Your task to perform on an android device: Show me popular games on the Play Store Image 0: 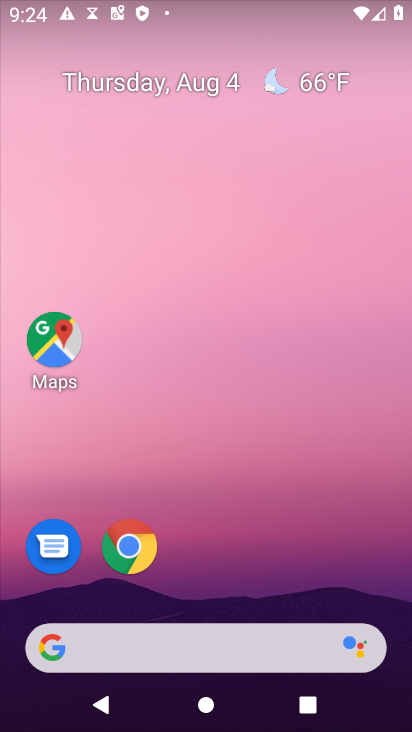
Step 0: drag from (248, 530) to (311, 72)
Your task to perform on an android device: Show me popular games on the Play Store Image 1: 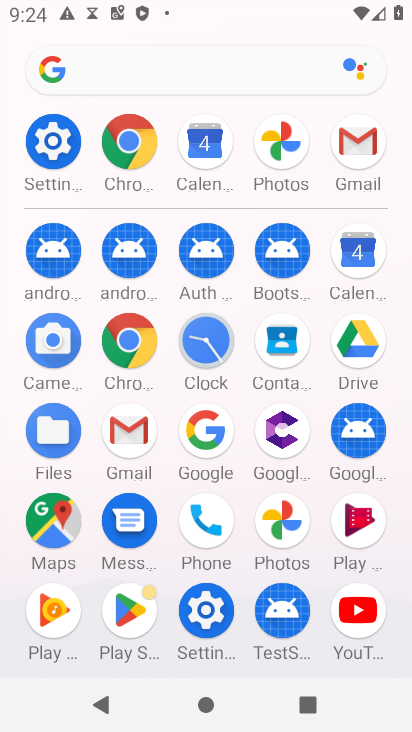
Step 1: click (128, 608)
Your task to perform on an android device: Show me popular games on the Play Store Image 2: 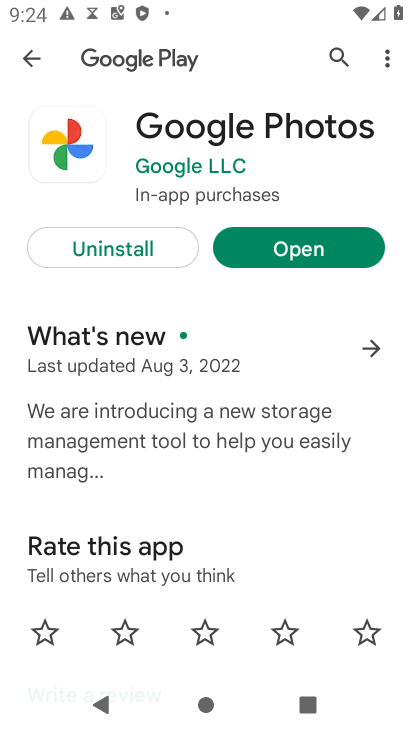
Step 2: click (28, 52)
Your task to perform on an android device: Show me popular games on the Play Store Image 3: 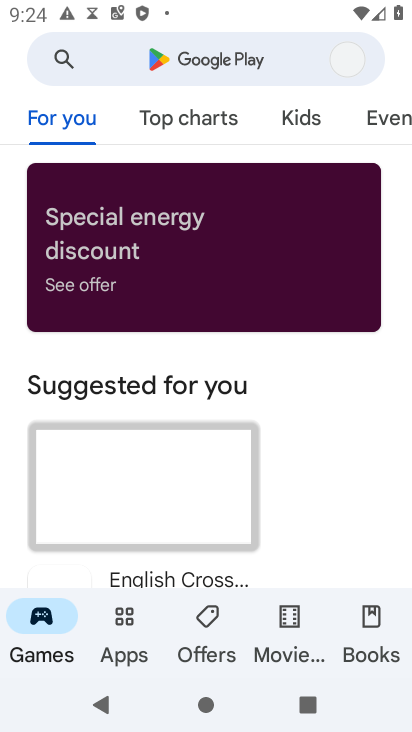
Step 3: click (29, 620)
Your task to perform on an android device: Show me popular games on the Play Store Image 4: 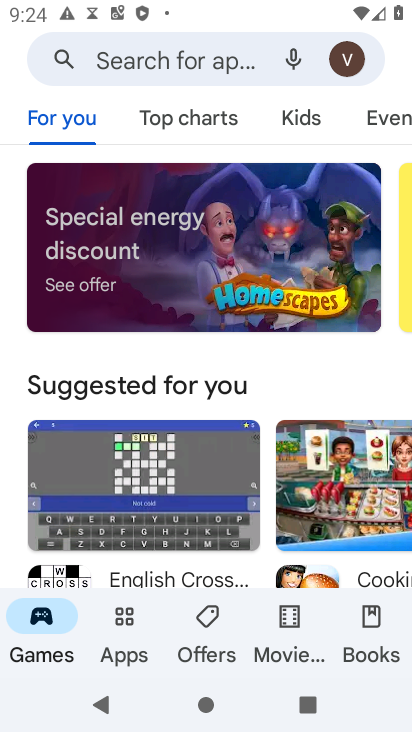
Step 4: drag from (394, 137) to (154, 109)
Your task to perform on an android device: Show me popular games on the Play Store Image 5: 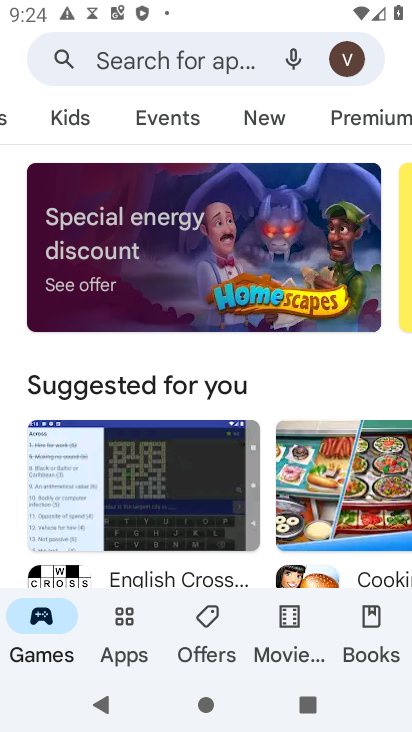
Step 5: drag from (403, 130) to (100, 114)
Your task to perform on an android device: Show me popular games on the Play Store Image 6: 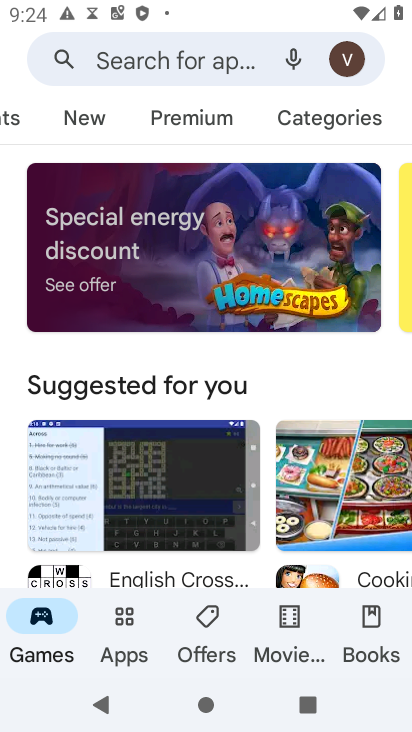
Step 6: click (321, 122)
Your task to perform on an android device: Show me popular games on the Play Store Image 7: 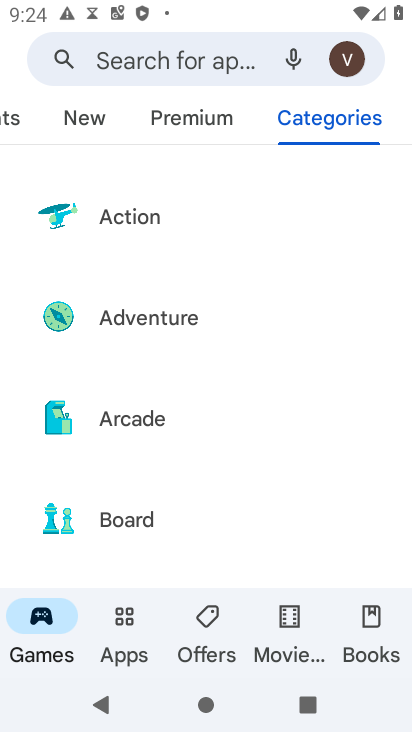
Step 7: task complete